Your task to perform on an android device: turn on notifications settings in the gmail app Image 0: 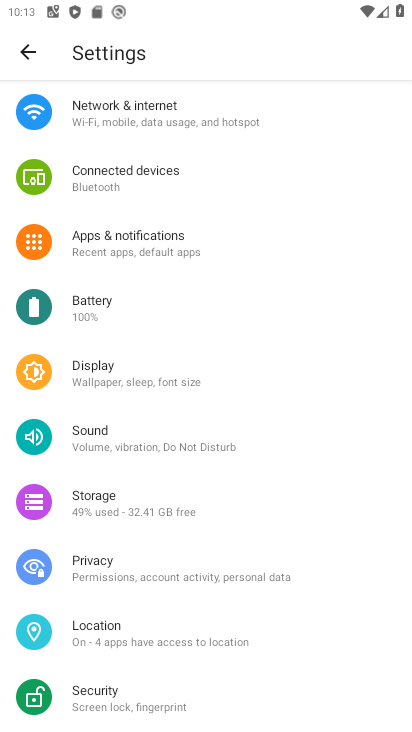
Step 0: press home button
Your task to perform on an android device: turn on notifications settings in the gmail app Image 1: 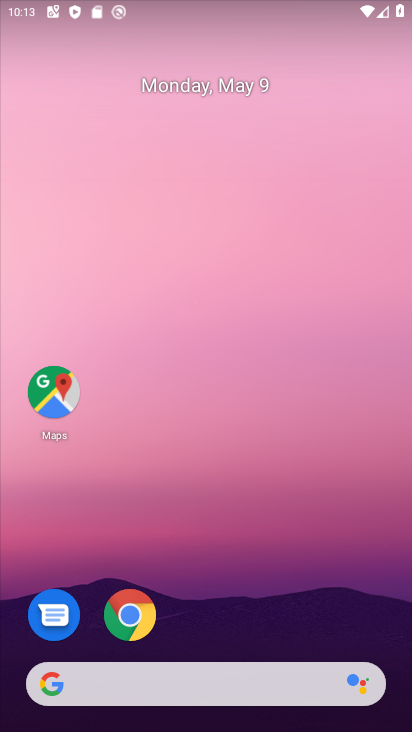
Step 1: drag from (195, 564) to (207, 180)
Your task to perform on an android device: turn on notifications settings in the gmail app Image 2: 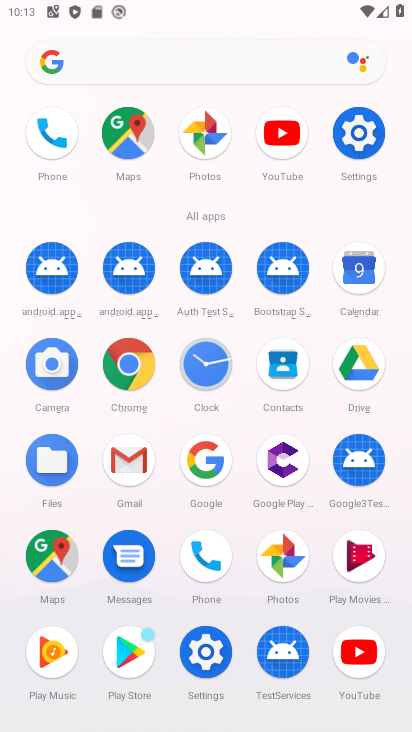
Step 2: click (135, 465)
Your task to perform on an android device: turn on notifications settings in the gmail app Image 3: 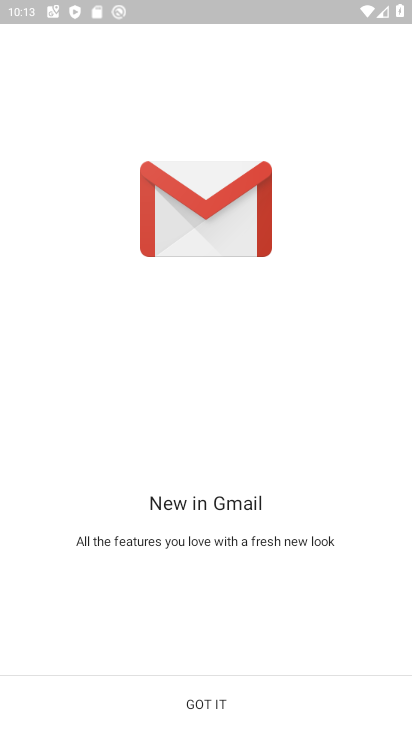
Step 3: click (198, 714)
Your task to perform on an android device: turn on notifications settings in the gmail app Image 4: 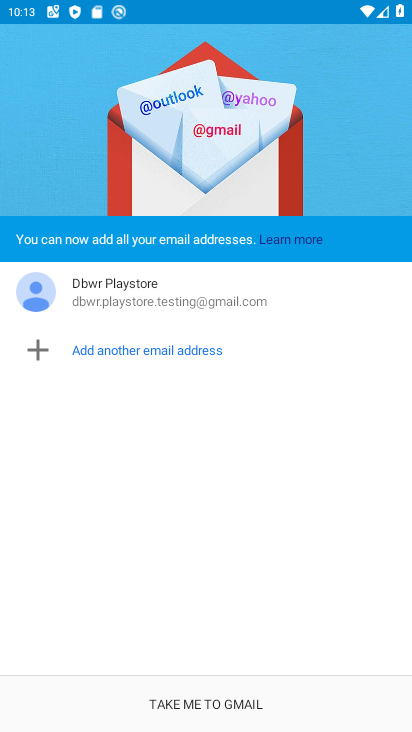
Step 4: click (178, 709)
Your task to perform on an android device: turn on notifications settings in the gmail app Image 5: 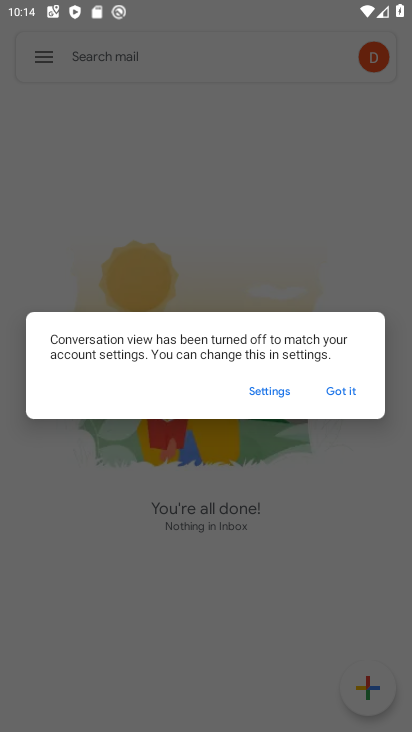
Step 5: click (337, 388)
Your task to perform on an android device: turn on notifications settings in the gmail app Image 6: 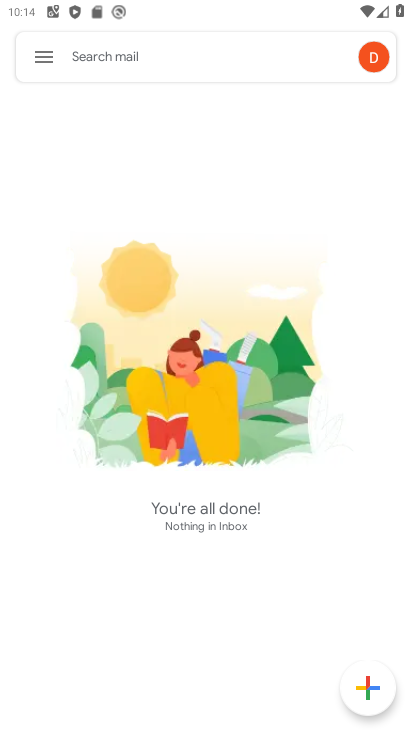
Step 6: click (39, 59)
Your task to perform on an android device: turn on notifications settings in the gmail app Image 7: 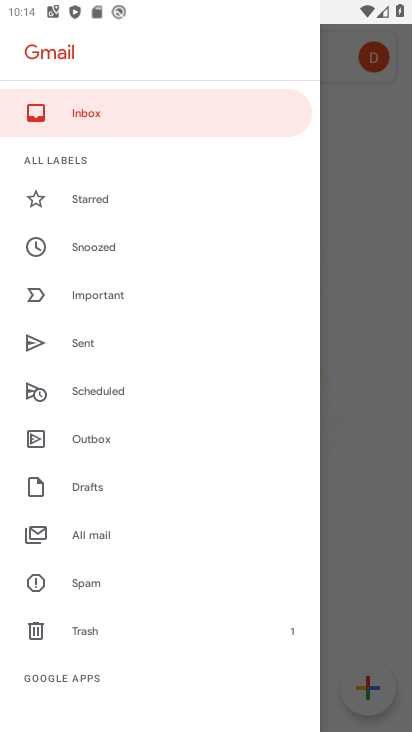
Step 7: drag from (141, 617) to (180, 211)
Your task to perform on an android device: turn on notifications settings in the gmail app Image 8: 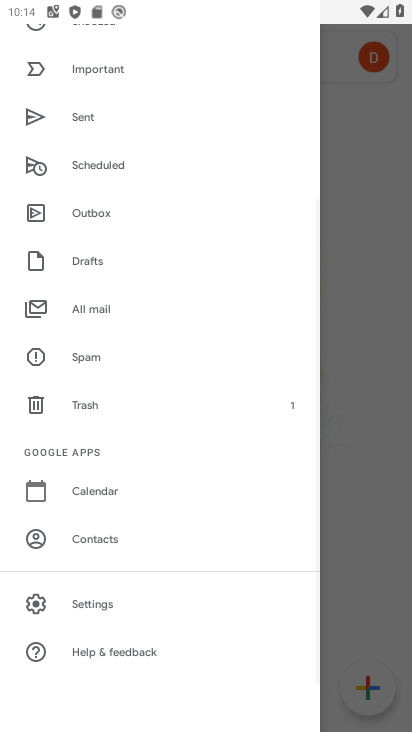
Step 8: click (97, 598)
Your task to perform on an android device: turn on notifications settings in the gmail app Image 9: 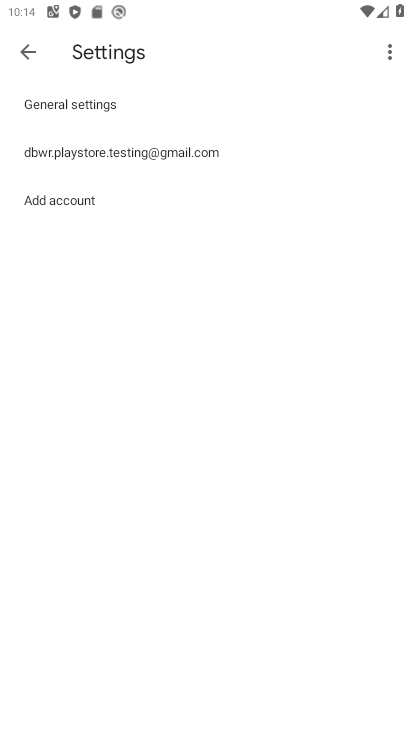
Step 9: click (104, 140)
Your task to perform on an android device: turn on notifications settings in the gmail app Image 10: 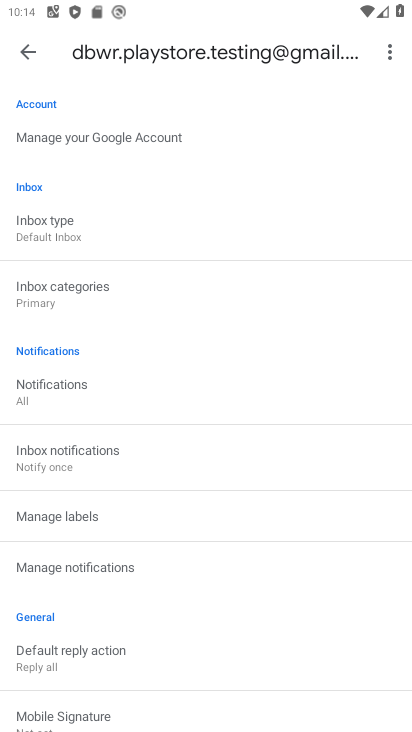
Step 10: click (94, 565)
Your task to perform on an android device: turn on notifications settings in the gmail app Image 11: 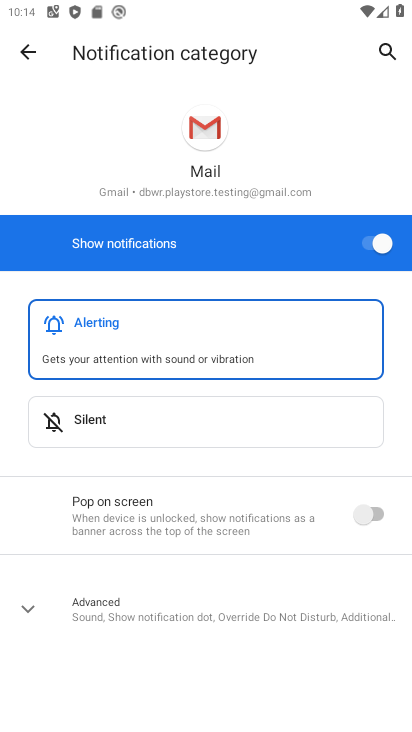
Step 11: task complete